Your task to perform on an android device: Go to Google Image 0: 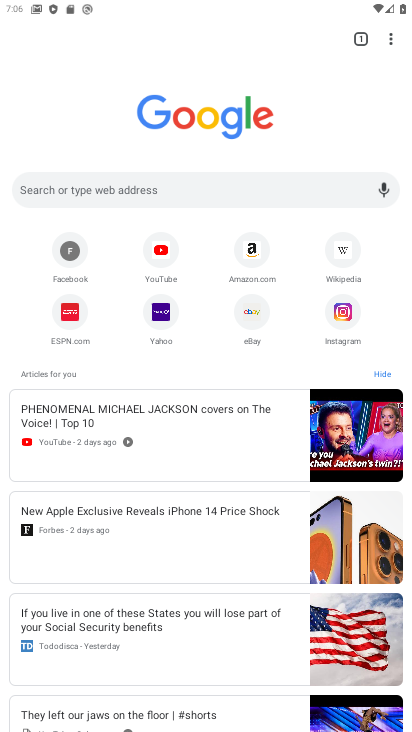
Step 0: task complete